Your task to perform on an android device: Set the phone to "Do not disturb". Image 0: 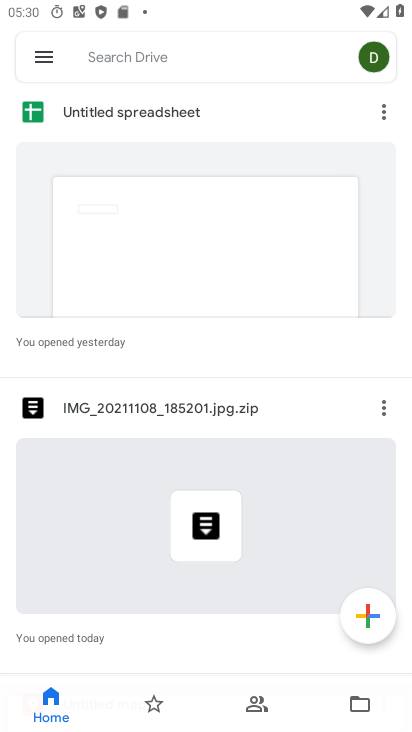
Step 0: press back button
Your task to perform on an android device: Set the phone to "Do not disturb". Image 1: 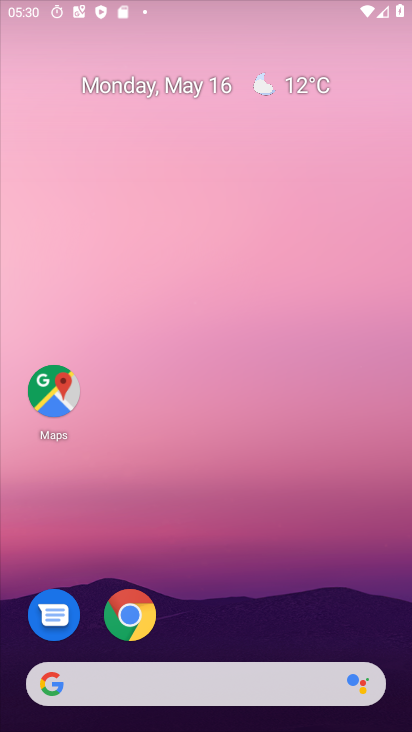
Step 1: drag from (282, 604) to (191, 0)
Your task to perform on an android device: Set the phone to "Do not disturb". Image 2: 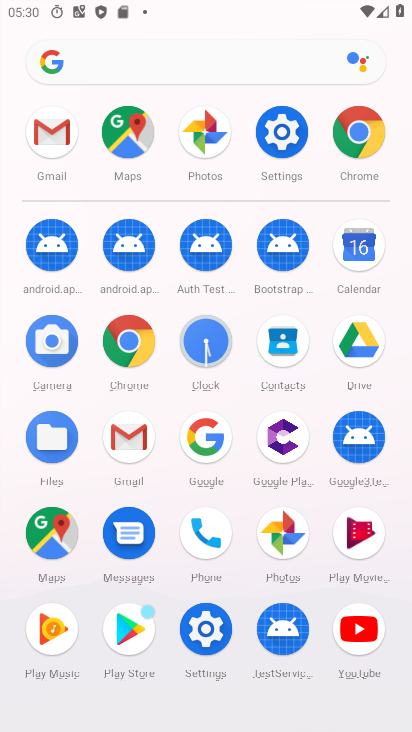
Step 2: click (280, 105)
Your task to perform on an android device: Set the phone to "Do not disturb". Image 3: 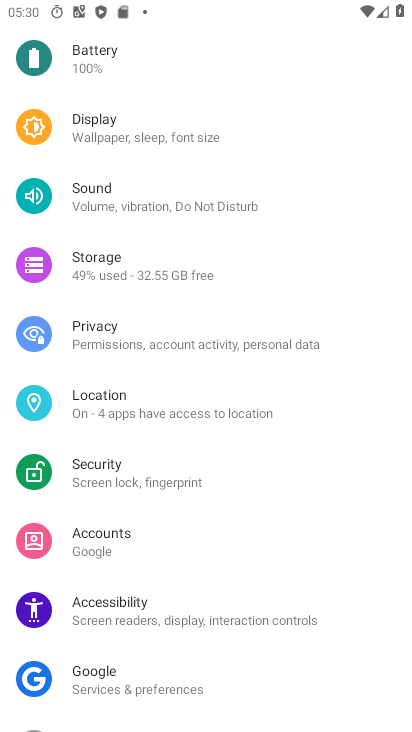
Step 3: click (94, 172)
Your task to perform on an android device: Set the phone to "Do not disturb". Image 4: 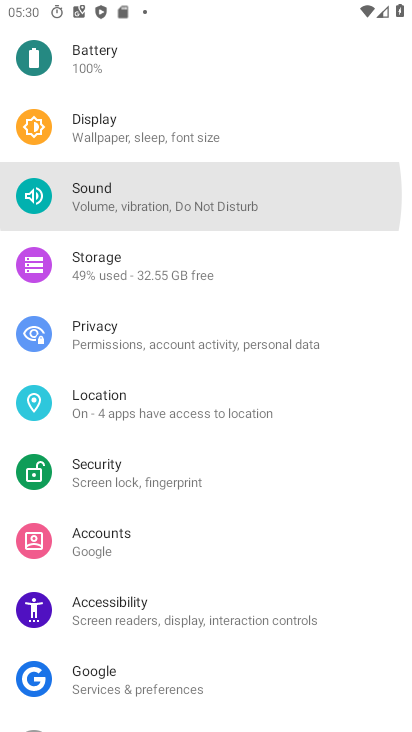
Step 4: drag from (135, 410) to (121, 100)
Your task to perform on an android device: Set the phone to "Do not disturb". Image 5: 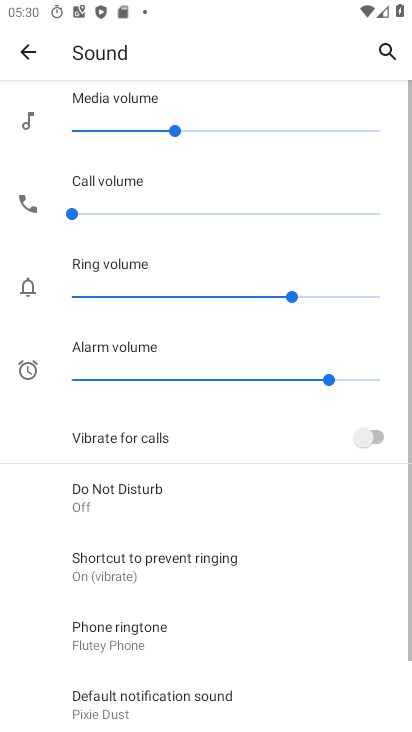
Step 5: drag from (187, 428) to (142, 157)
Your task to perform on an android device: Set the phone to "Do not disturb". Image 6: 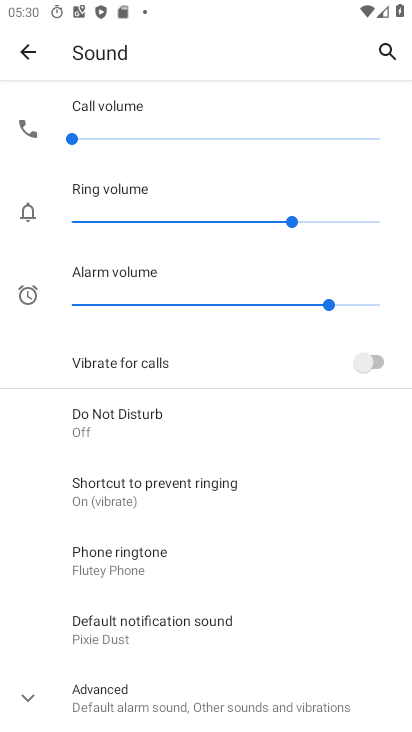
Step 6: click (20, 55)
Your task to perform on an android device: Set the phone to "Do not disturb". Image 7: 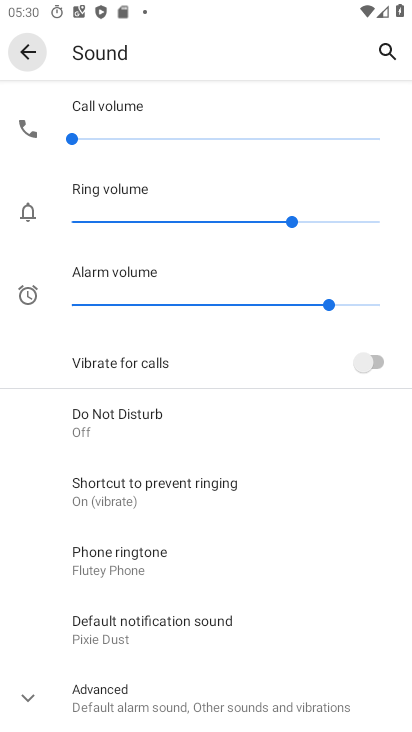
Step 7: click (20, 42)
Your task to perform on an android device: Set the phone to "Do not disturb". Image 8: 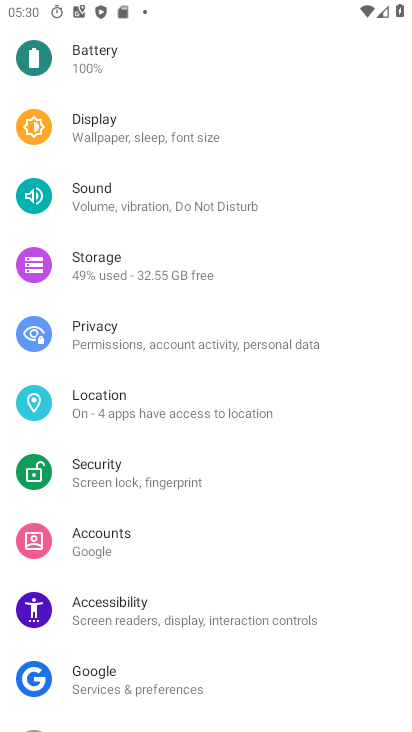
Step 8: drag from (100, 447) to (170, 95)
Your task to perform on an android device: Set the phone to "Do not disturb". Image 9: 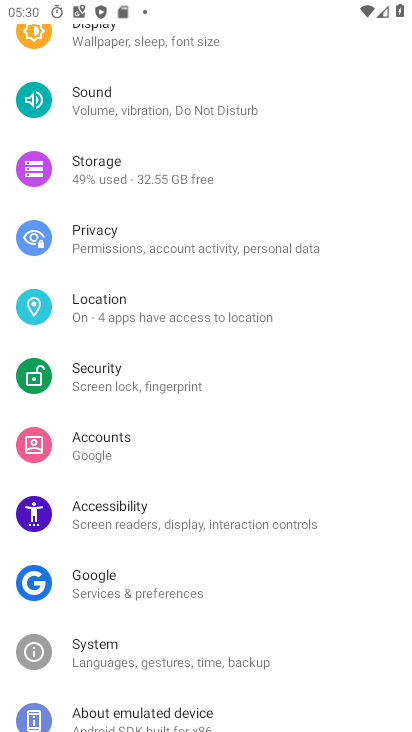
Step 9: drag from (118, 186) to (244, 471)
Your task to perform on an android device: Set the phone to "Do not disturb". Image 10: 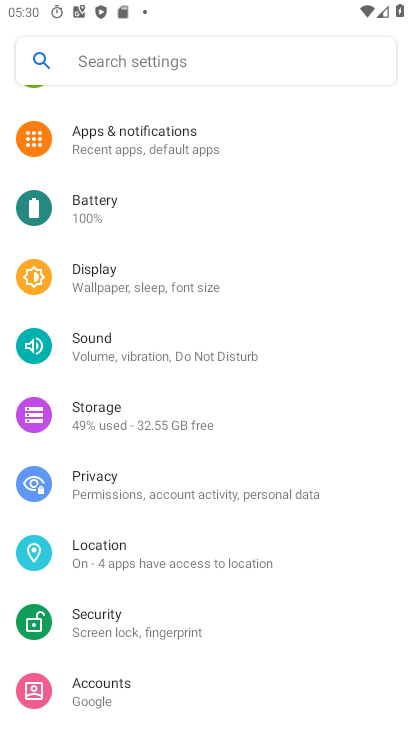
Step 10: drag from (155, 211) to (200, 438)
Your task to perform on an android device: Set the phone to "Do not disturb". Image 11: 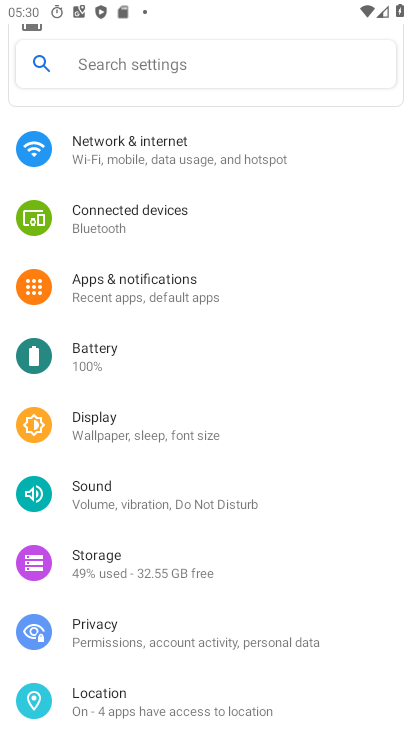
Step 11: drag from (146, 206) to (215, 443)
Your task to perform on an android device: Set the phone to "Do not disturb". Image 12: 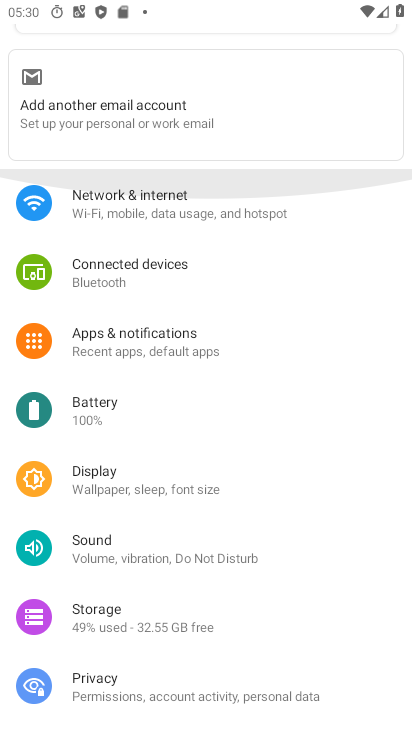
Step 12: drag from (145, 231) to (198, 442)
Your task to perform on an android device: Set the phone to "Do not disturb". Image 13: 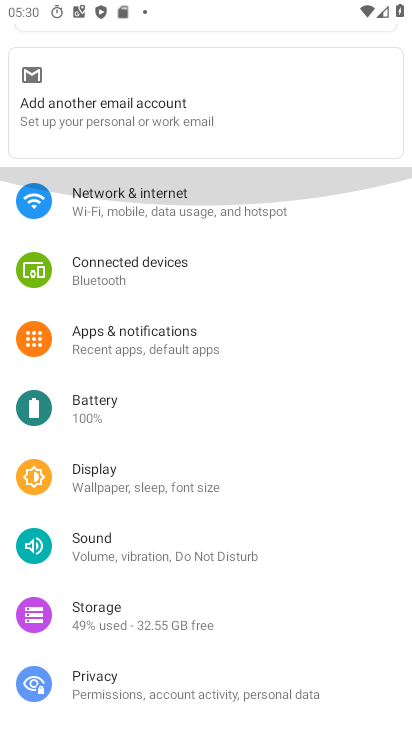
Step 13: drag from (162, 264) to (279, 497)
Your task to perform on an android device: Set the phone to "Do not disturb". Image 14: 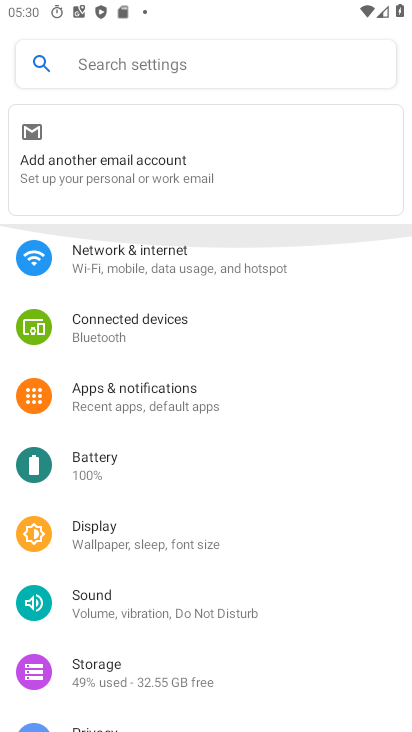
Step 14: drag from (179, 281) to (299, 526)
Your task to perform on an android device: Set the phone to "Do not disturb". Image 15: 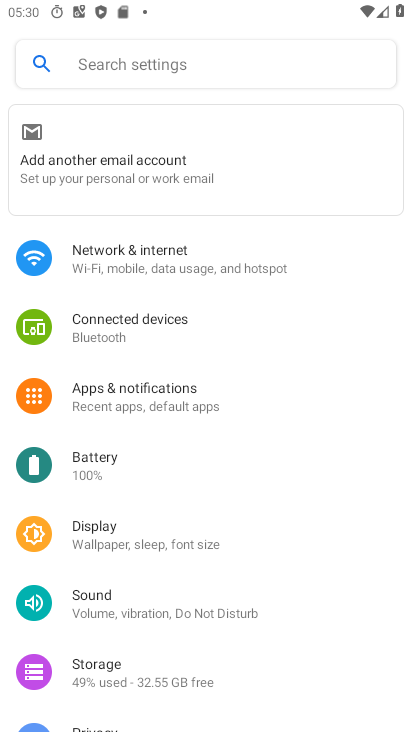
Step 15: click (105, 603)
Your task to perform on an android device: Set the phone to "Do not disturb". Image 16: 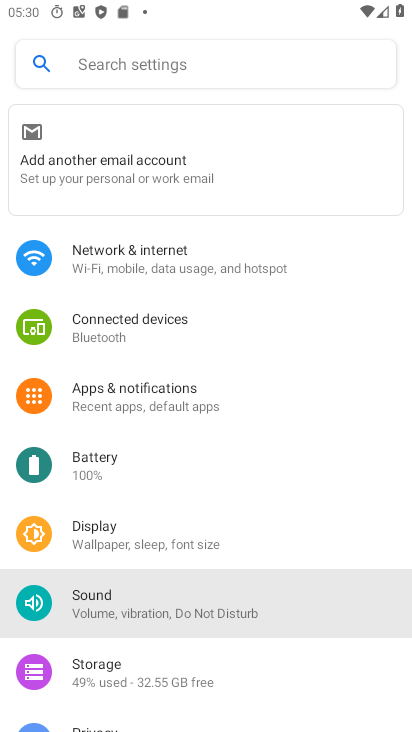
Step 16: click (104, 603)
Your task to perform on an android device: Set the phone to "Do not disturb". Image 17: 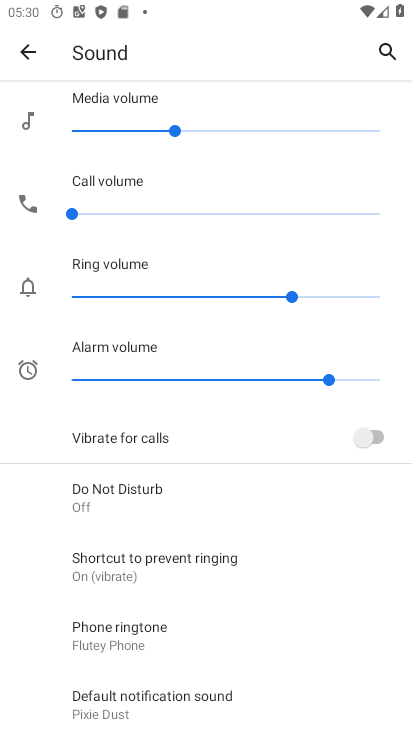
Step 17: task complete